Your task to perform on an android device: toggle javascript in the chrome app Image 0: 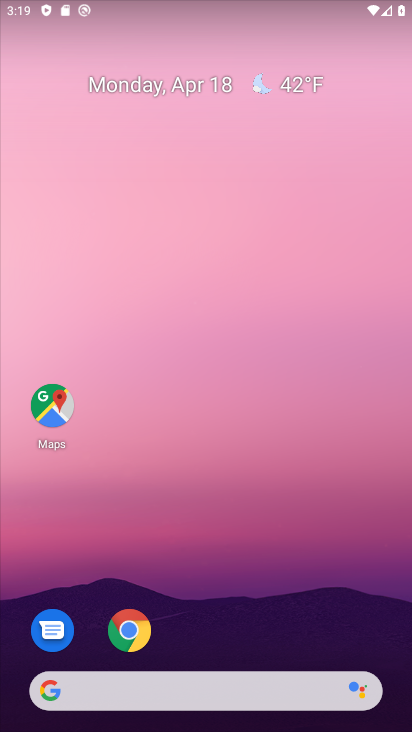
Step 0: drag from (273, 462) to (299, 248)
Your task to perform on an android device: toggle javascript in the chrome app Image 1: 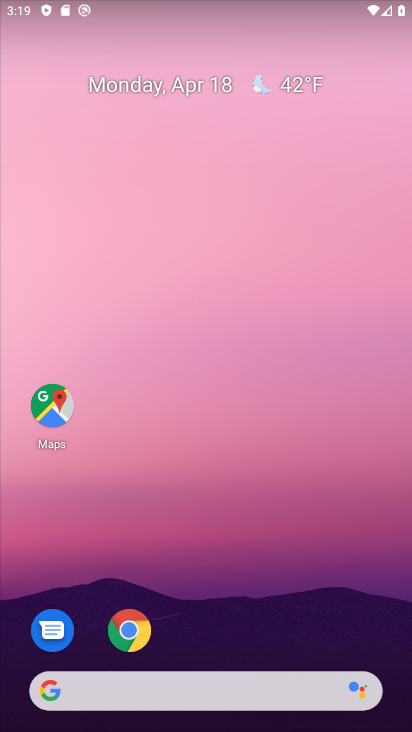
Step 1: drag from (298, 320) to (321, 158)
Your task to perform on an android device: toggle javascript in the chrome app Image 2: 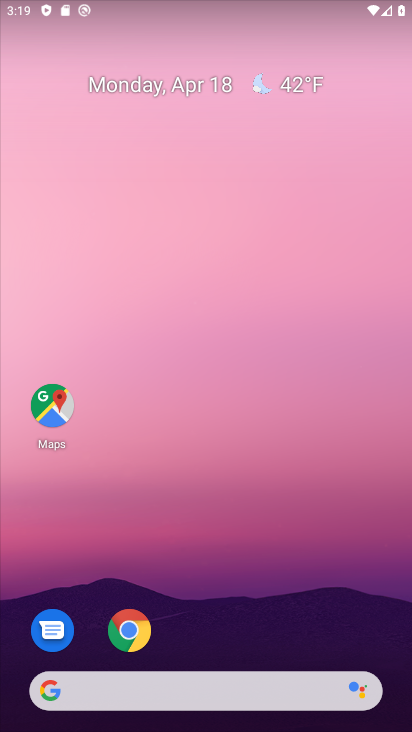
Step 2: drag from (225, 576) to (296, 283)
Your task to perform on an android device: toggle javascript in the chrome app Image 3: 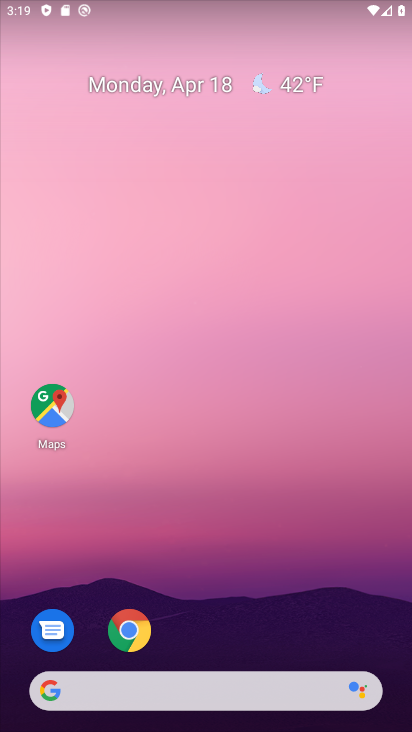
Step 3: drag from (231, 565) to (279, 216)
Your task to perform on an android device: toggle javascript in the chrome app Image 4: 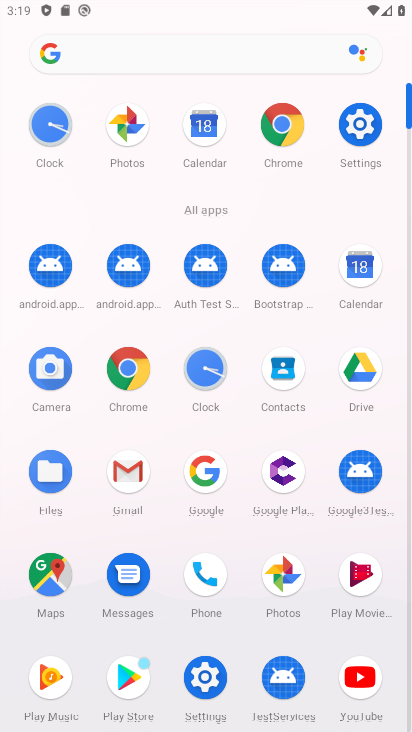
Step 4: click (279, 119)
Your task to perform on an android device: toggle javascript in the chrome app Image 5: 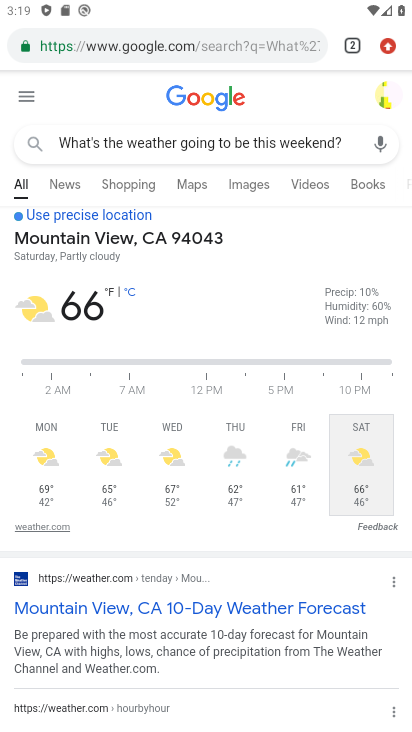
Step 5: click (385, 35)
Your task to perform on an android device: toggle javascript in the chrome app Image 6: 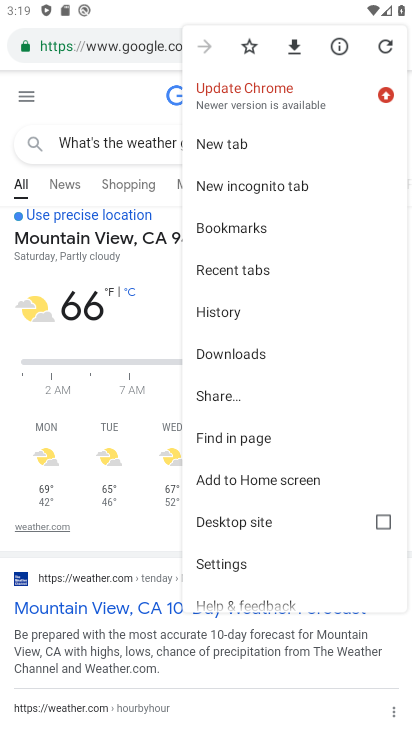
Step 6: click (248, 556)
Your task to perform on an android device: toggle javascript in the chrome app Image 7: 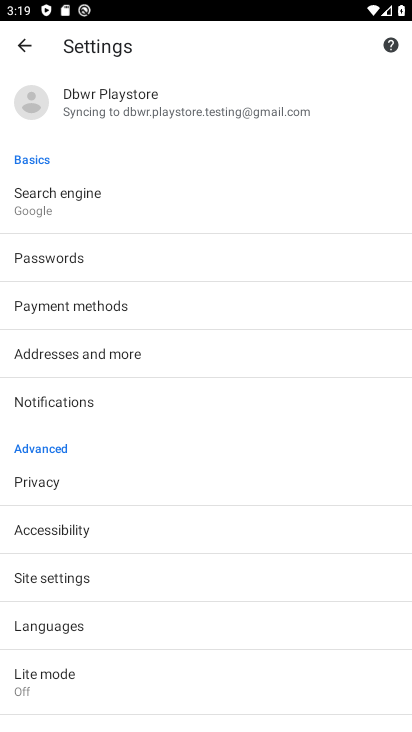
Step 7: click (97, 571)
Your task to perform on an android device: toggle javascript in the chrome app Image 8: 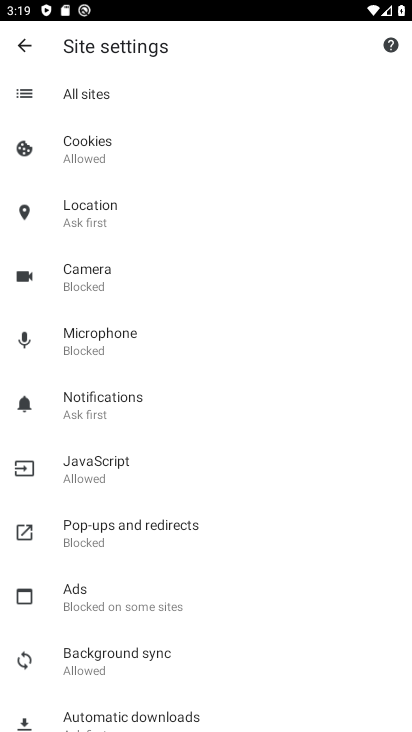
Step 8: click (120, 461)
Your task to perform on an android device: toggle javascript in the chrome app Image 9: 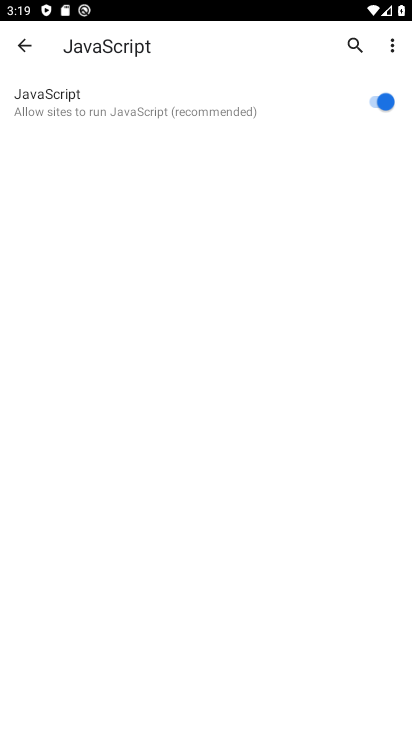
Step 9: click (369, 100)
Your task to perform on an android device: toggle javascript in the chrome app Image 10: 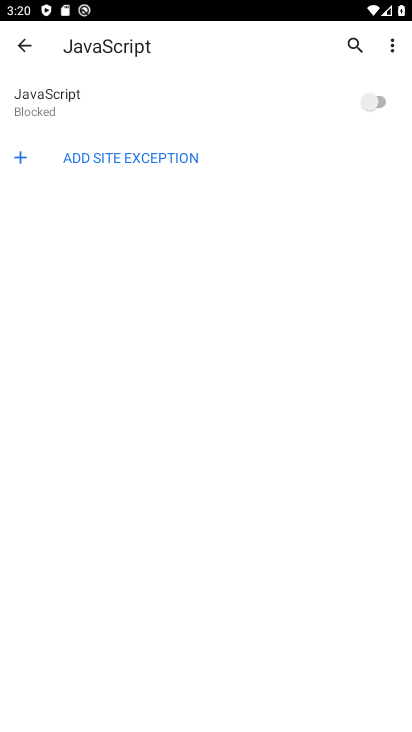
Step 10: task complete